Your task to perform on an android device: open sync settings in chrome Image 0: 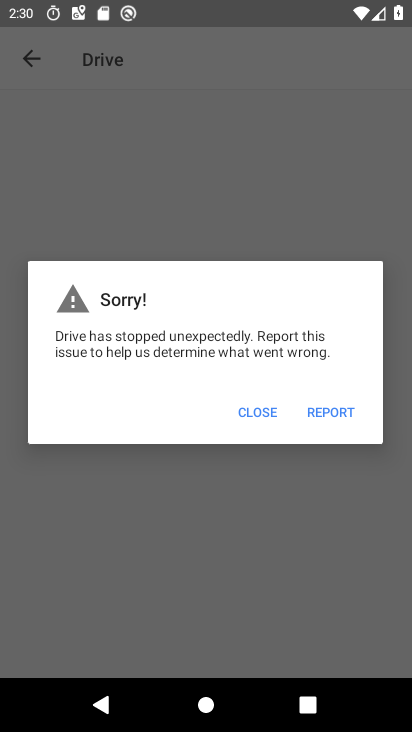
Step 0: press home button
Your task to perform on an android device: open sync settings in chrome Image 1: 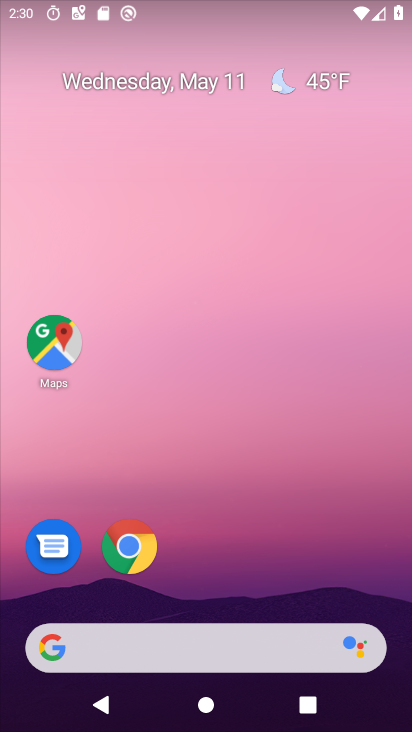
Step 1: drag from (181, 586) to (294, 6)
Your task to perform on an android device: open sync settings in chrome Image 2: 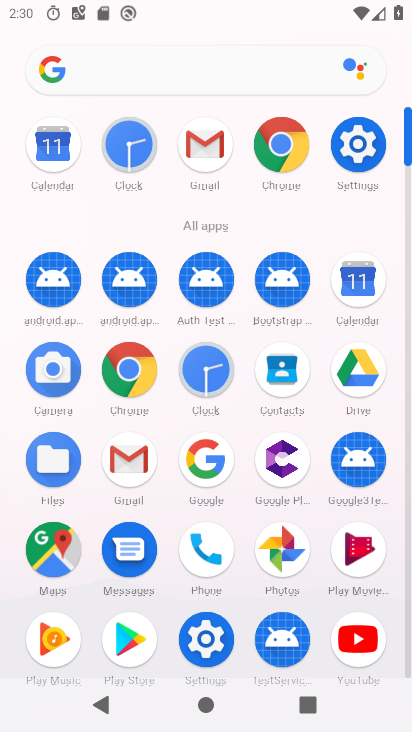
Step 2: click (360, 150)
Your task to perform on an android device: open sync settings in chrome Image 3: 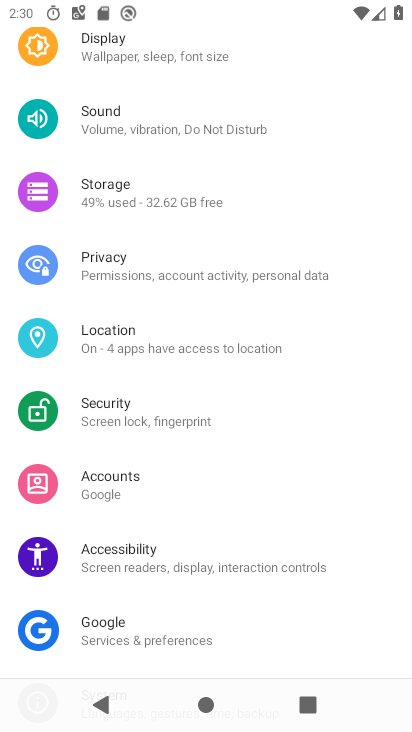
Step 3: press home button
Your task to perform on an android device: open sync settings in chrome Image 4: 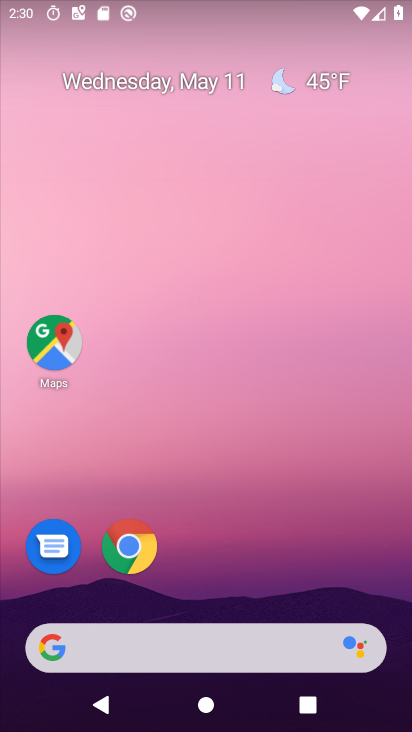
Step 4: click (135, 545)
Your task to perform on an android device: open sync settings in chrome Image 5: 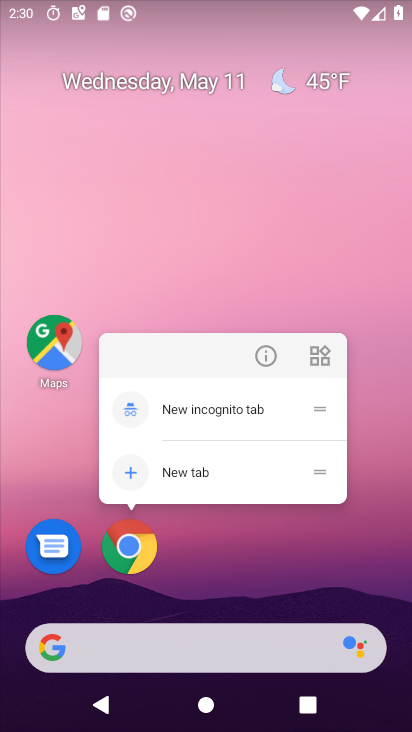
Step 5: click (127, 544)
Your task to perform on an android device: open sync settings in chrome Image 6: 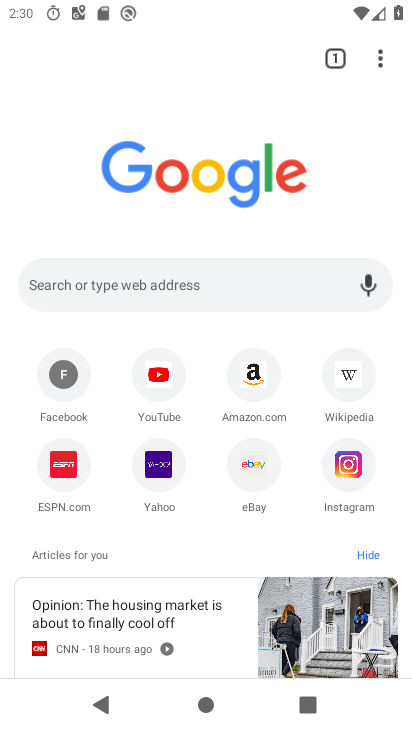
Step 6: click (380, 49)
Your task to perform on an android device: open sync settings in chrome Image 7: 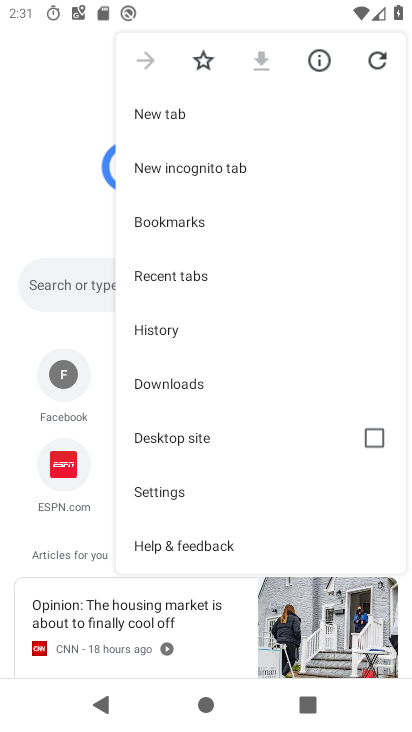
Step 7: click (159, 494)
Your task to perform on an android device: open sync settings in chrome Image 8: 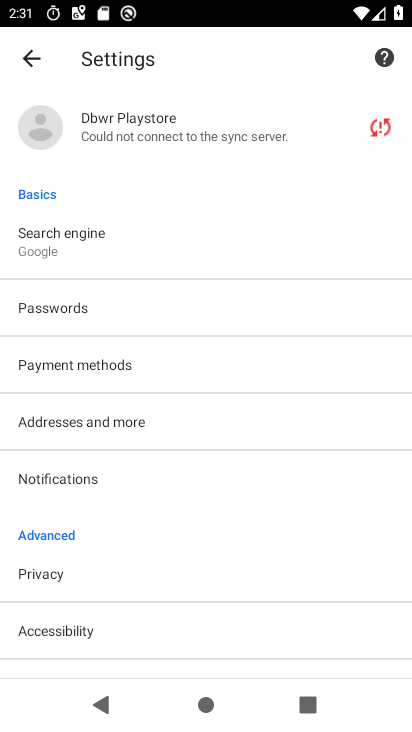
Step 8: click (176, 145)
Your task to perform on an android device: open sync settings in chrome Image 9: 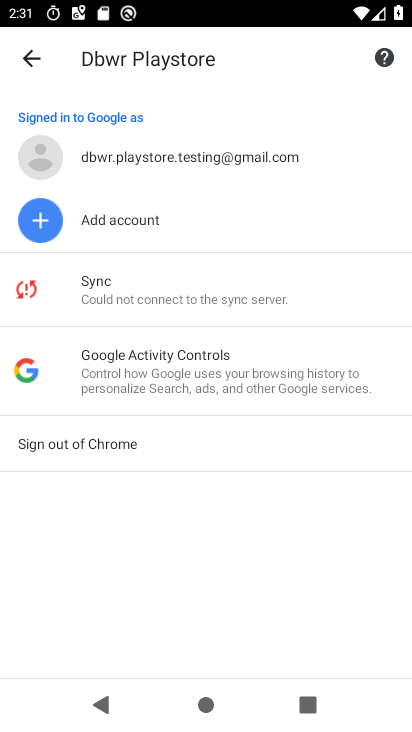
Step 9: click (152, 302)
Your task to perform on an android device: open sync settings in chrome Image 10: 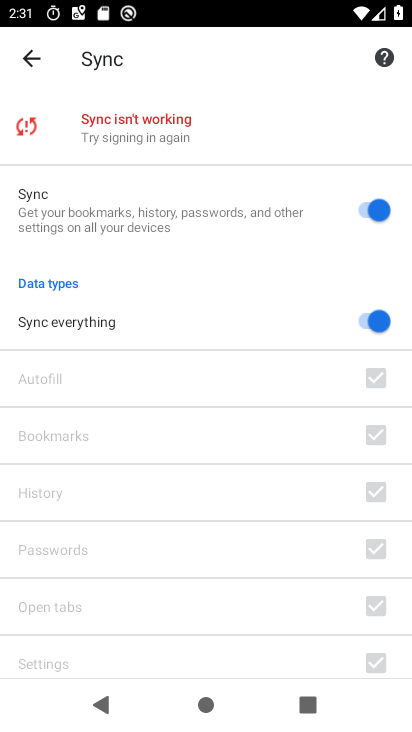
Step 10: task complete